Your task to perform on an android device: Open eBay Image 0: 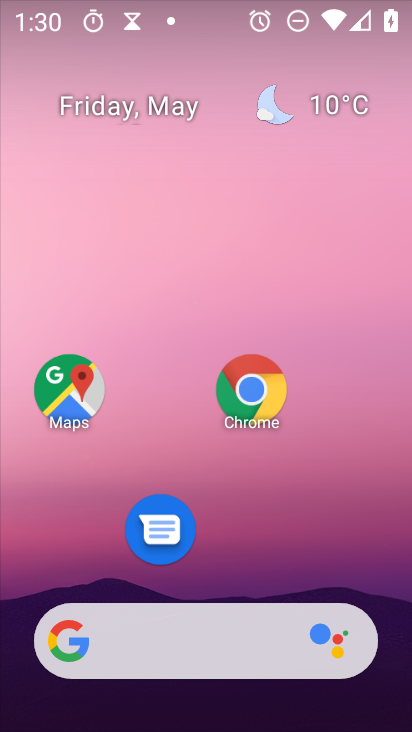
Step 0: press home button
Your task to perform on an android device: Open eBay Image 1: 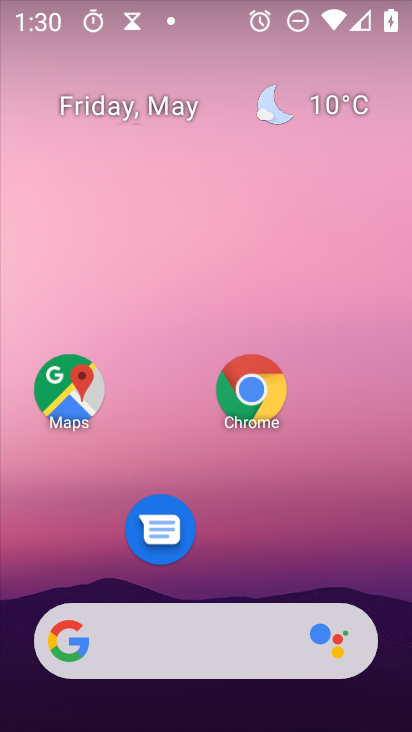
Step 1: click (262, 391)
Your task to perform on an android device: Open eBay Image 2: 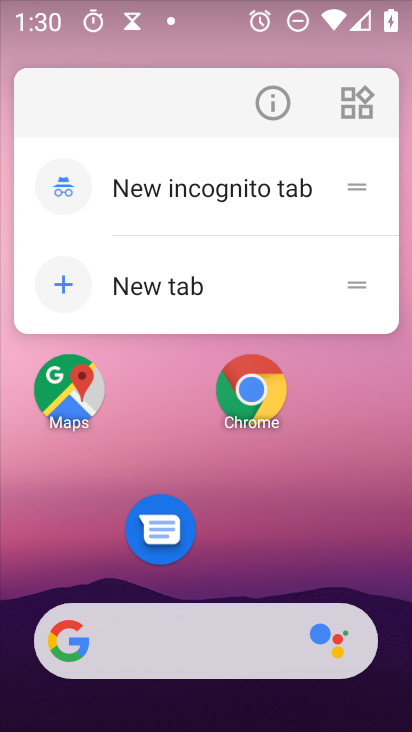
Step 2: click (256, 392)
Your task to perform on an android device: Open eBay Image 3: 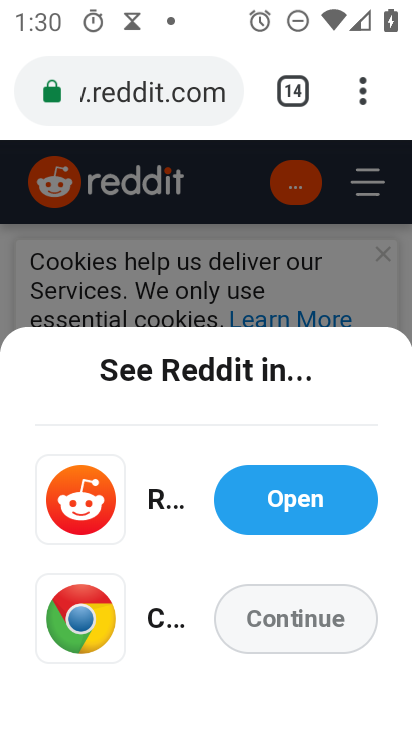
Step 3: drag from (361, 109) to (190, 177)
Your task to perform on an android device: Open eBay Image 4: 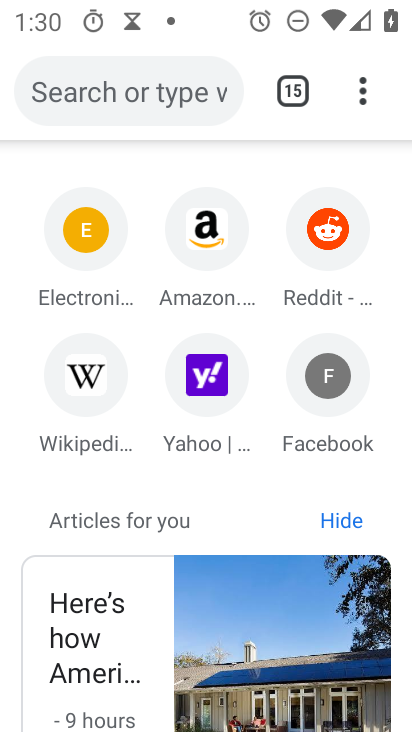
Step 4: click (118, 98)
Your task to perform on an android device: Open eBay Image 5: 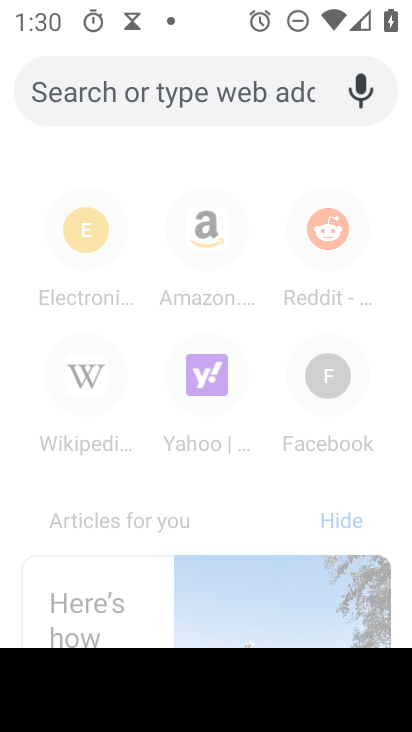
Step 5: type "ebay"
Your task to perform on an android device: Open eBay Image 6: 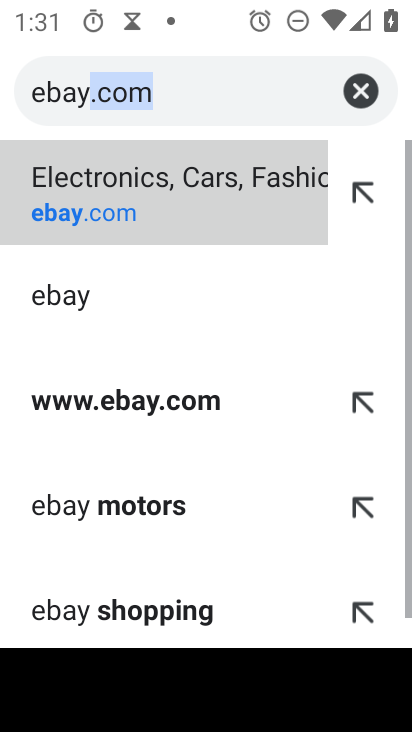
Step 6: click (199, 185)
Your task to perform on an android device: Open eBay Image 7: 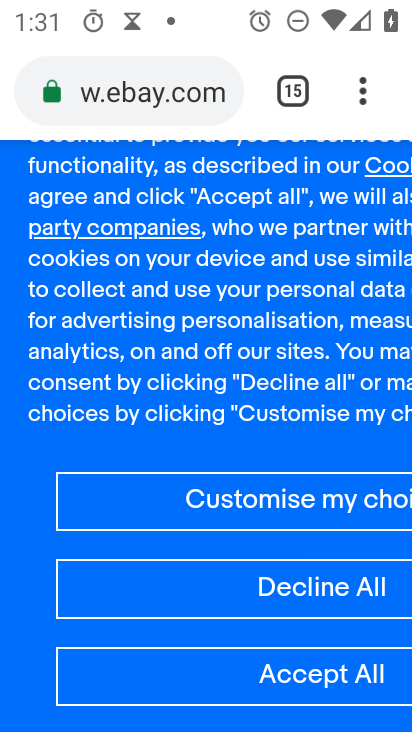
Step 7: task complete